Your task to perform on an android device: open wifi settings Image 0: 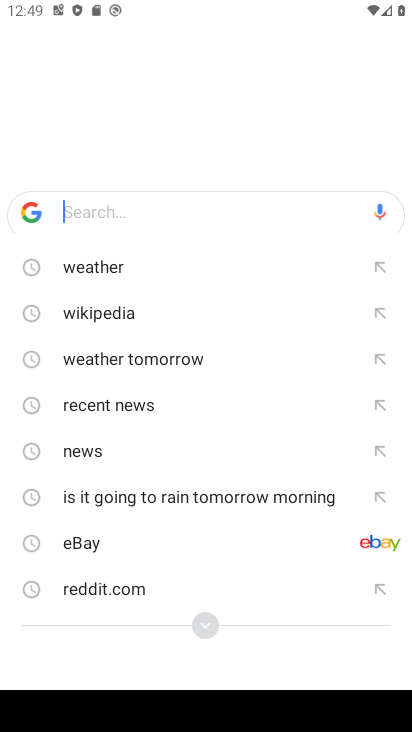
Step 0: press home button
Your task to perform on an android device: open wifi settings Image 1: 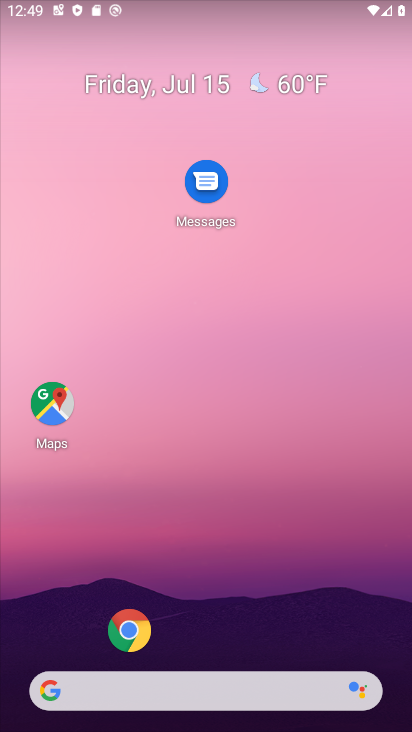
Step 1: drag from (30, 712) to (199, 190)
Your task to perform on an android device: open wifi settings Image 2: 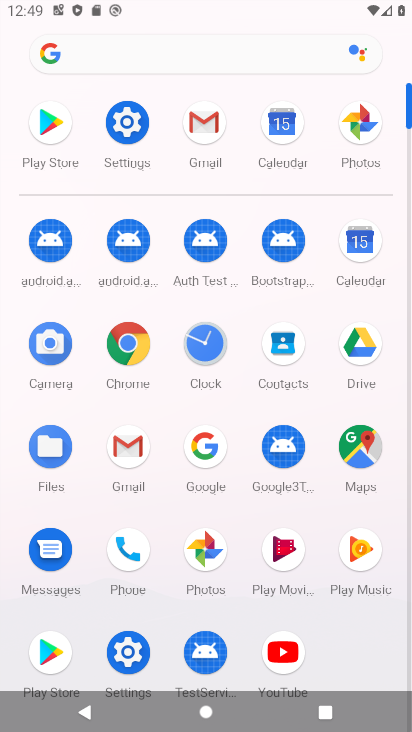
Step 2: click (135, 662)
Your task to perform on an android device: open wifi settings Image 3: 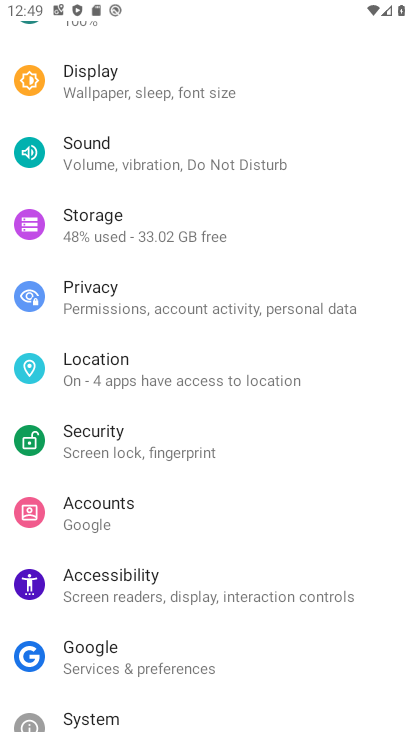
Step 3: drag from (208, 57) to (234, 474)
Your task to perform on an android device: open wifi settings Image 4: 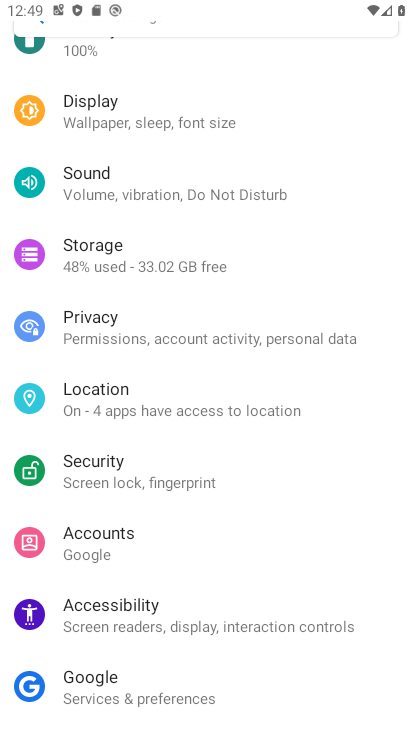
Step 4: drag from (189, 76) to (203, 700)
Your task to perform on an android device: open wifi settings Image 5: 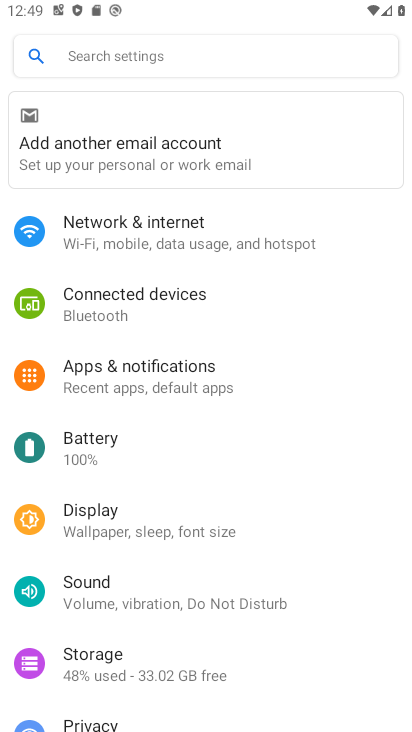
Step 5: click (163, 240)
Your task to perform on an android device: open wifi settings Image 6: 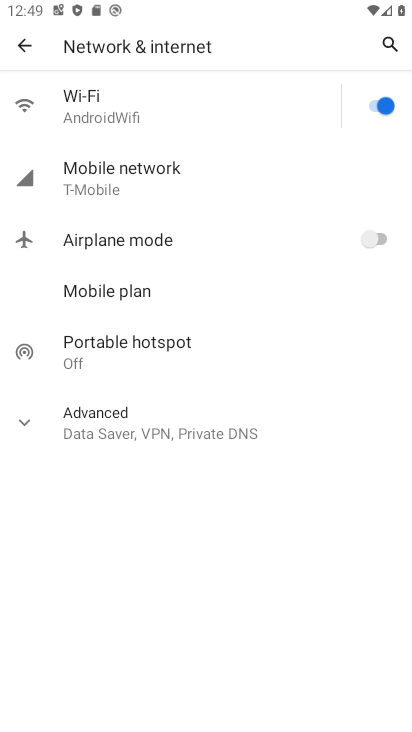
Step 6: click (111, 103)
Your task to perform on an android device: open wifi settings Image 7: 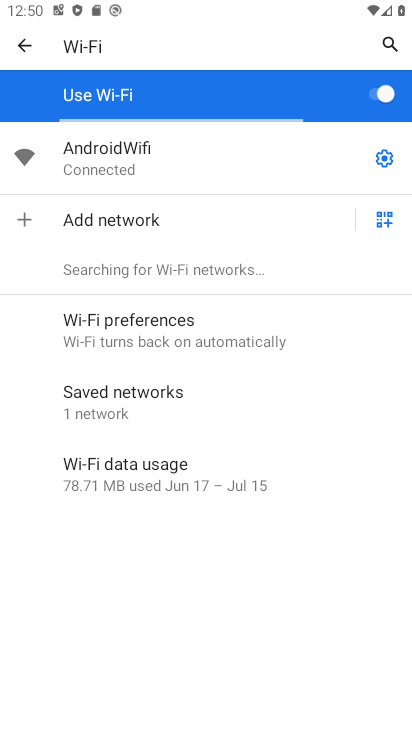
Step 7: task complete